Your task to perform on an android device: add a contact in the contacts app Image 0: 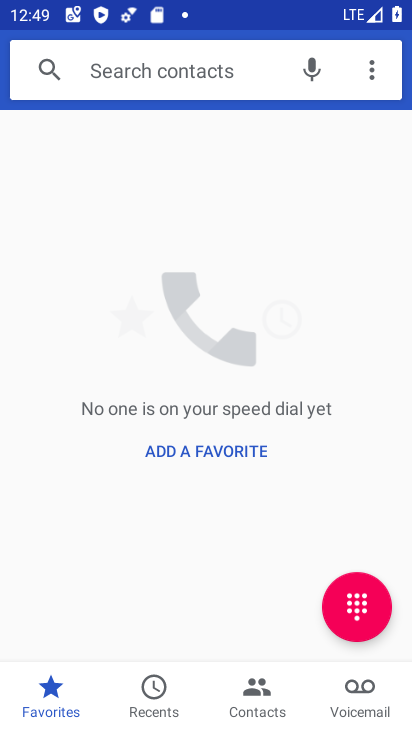
Step 0: press home button
Your task to perform on an android device: add a contact in the contacts app Image 1: 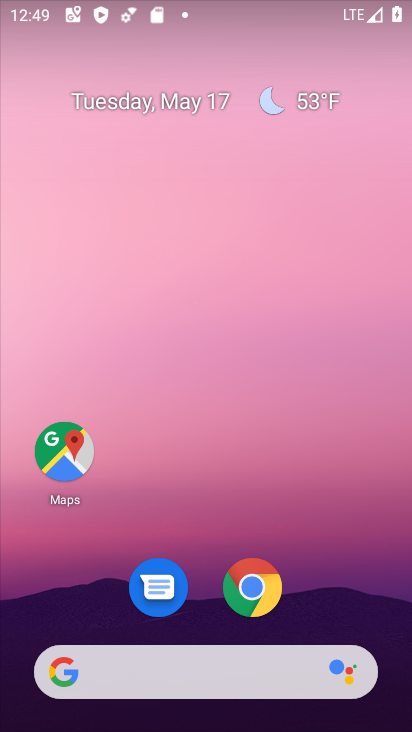
Step 1: drag from (224, 621) to (153, 118)
Your task to perform on an android device: add a contact in the contacts app Image 2: 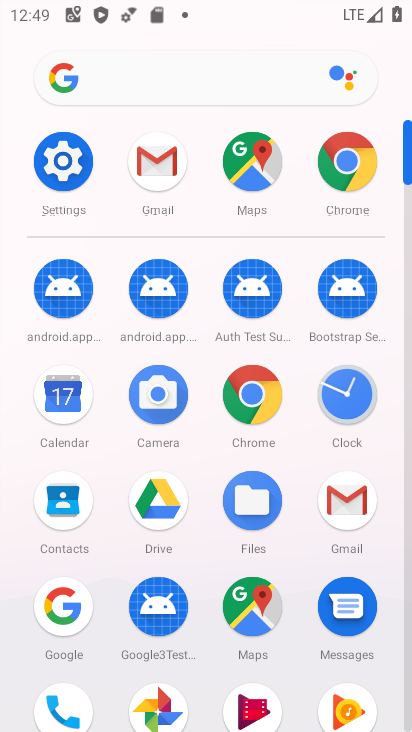
Step 2: click (60, 683)
Your task to perform on an android device: add a contact in the contacts app Image 3: 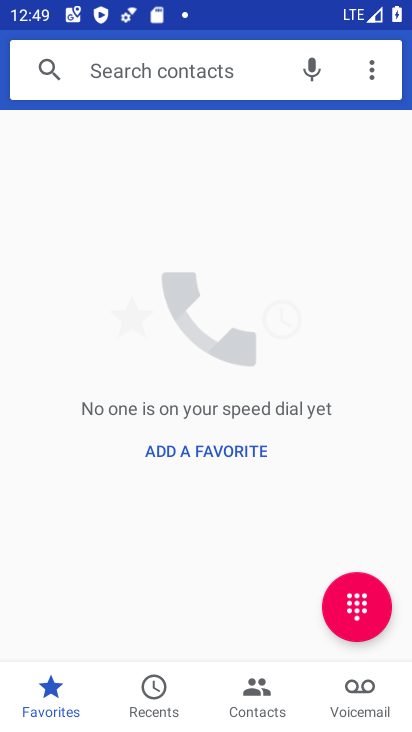
Step 3: click (252, 702)
Your task to perform on an android device: add a contact in the contacts app Image 4: 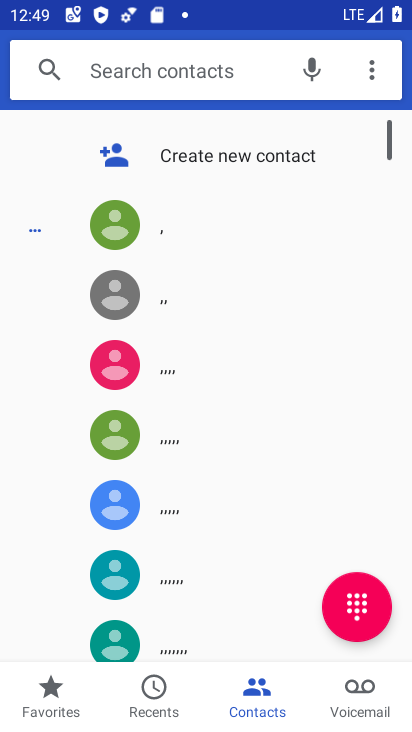
Step 4: click (179, 152)
Your task to perform on an android device: add a contact in the contacts app Image 5: 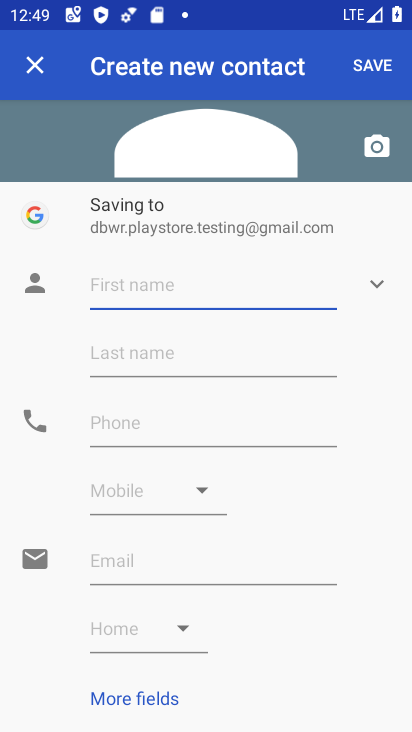
Step 5: type "hu"
Your task to perform on an android device: add a contact in the contacts app Image 6: 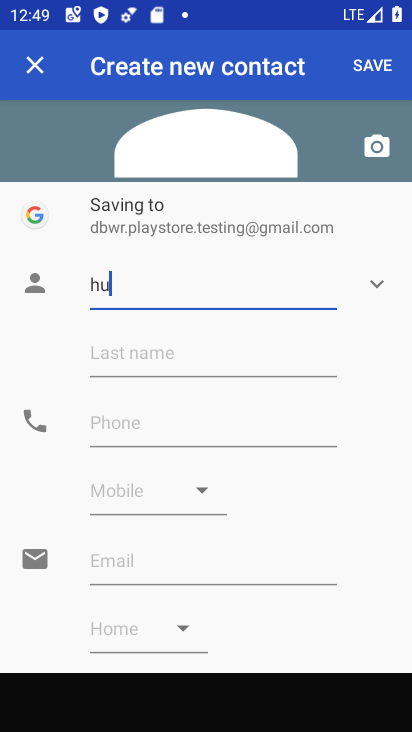
Step 6: type ""
Your task to perform on an android device: add a contact in the contacts app Image 7: 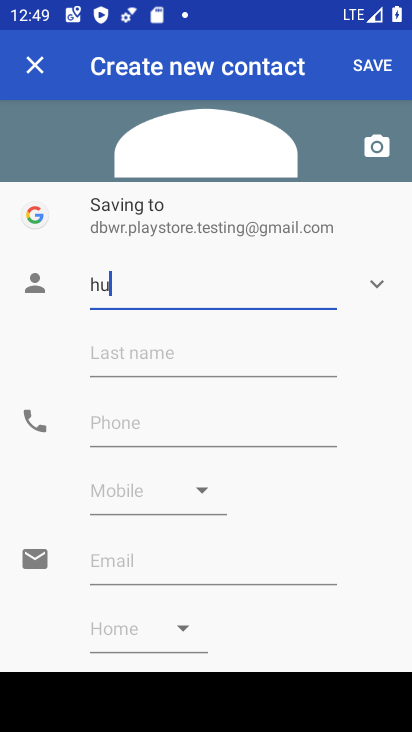
Step 7: click (125, 423)
Your task to perform on an android device: add a contact in the contacts app Image 8: 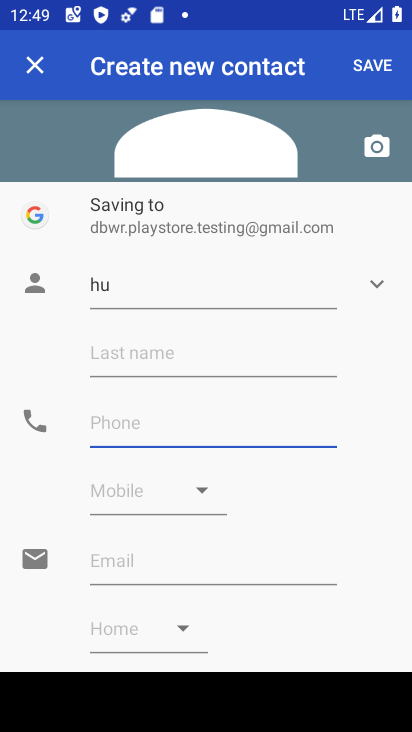
Step 8: type "766"
Your task to perform on an android device: add a contact in the contacts app Image 9: 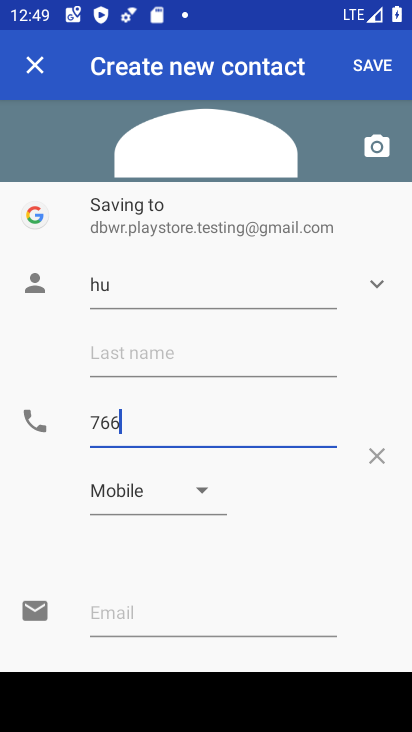
Step 9: type ""
Your task to perform on an android device: add a contact in the contacts app Image 10: 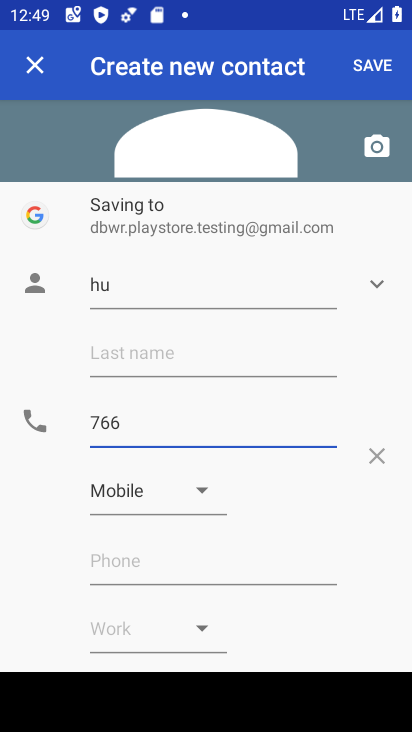
Step 10: click (363, 75)
Your task to perform on an android device: add a contact in the contacts app Image 11: 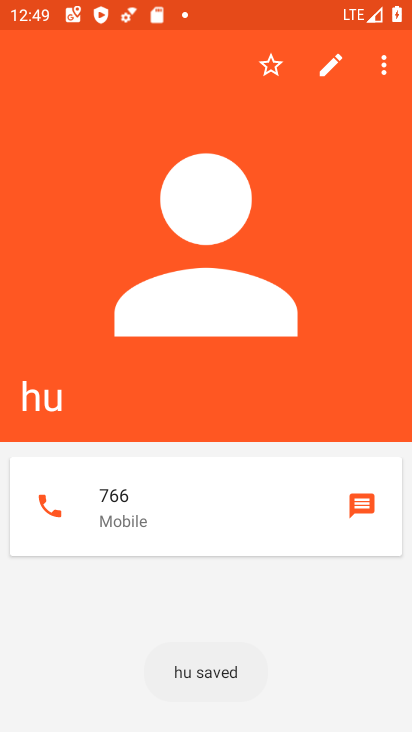
Step 11: task complete